Your task to perform on an android device: delete a single message in the gmail app Image 0: 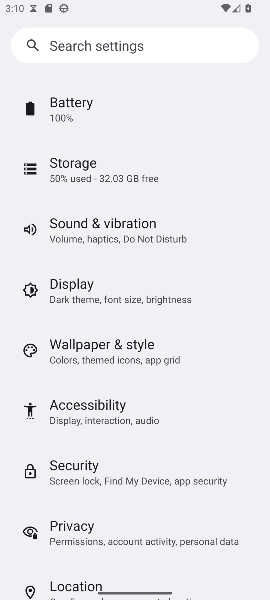
Step 0: press home button
Your task to perform on an android device: delete a single message in the gmail app Image 1: 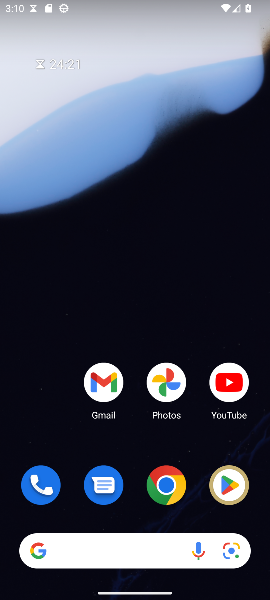
Step 1: click (107, 377)
Your task to perform on an android device: delete a single message in the gmail app Image 2: 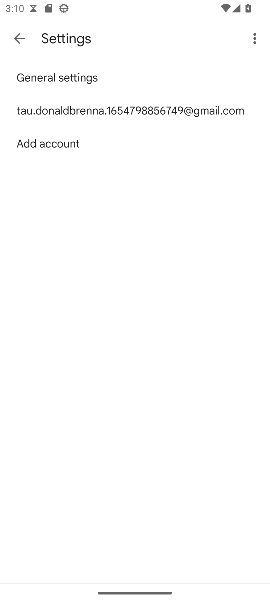
Step 2: click (18, 36)
Your task to perform on an android device: delete a single message in the gmail app Image 3: 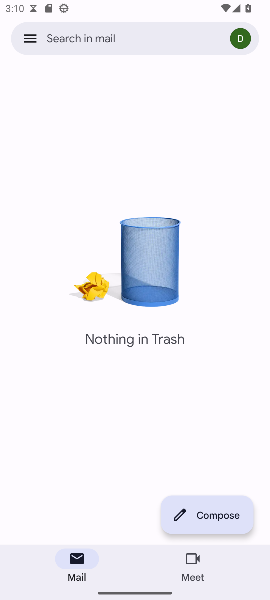
Step 3: click (26, 30)
Your task to perform on an android device: delete a single message in the gmail app Image 4: 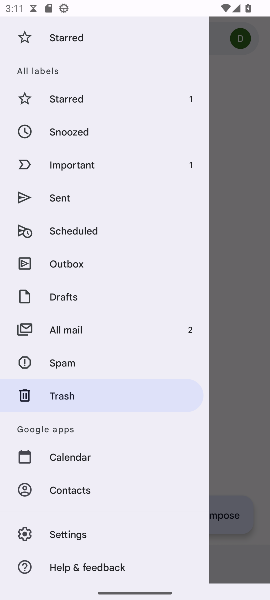
Step 4: click (59, 328)
Your task to perform on an android device: delete a single message in the gmail app Image 5: 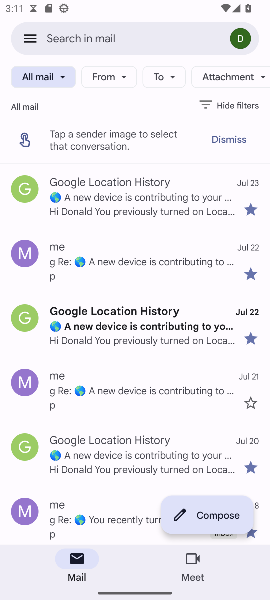
Step 5: click (16, 251)
Your task to perform on an android device: delete a single message in the gmail app Image 6: 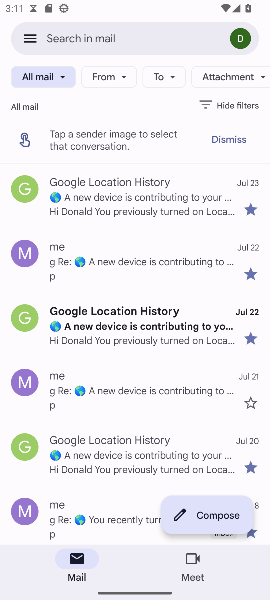
Step 6: click (26, 248)
Your task to perform on an android device: delete a single message in the gmail app Image 7: 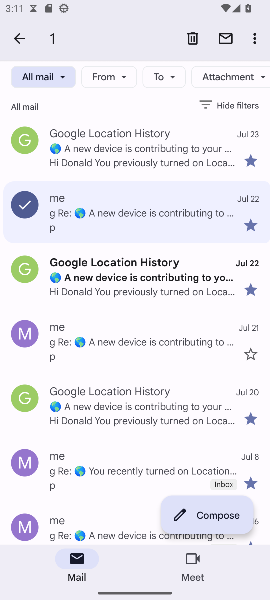
Step 7: click (190, 34)
Your task to perform on an android device: delete a single message in the gmail app Image 8: 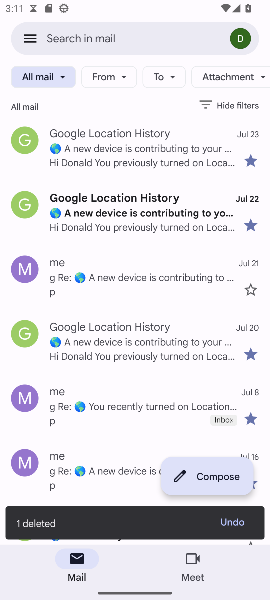
Step 8: task complete